Your task to perform on an android device: see tabs open on other devices in the chrome app Image 0: 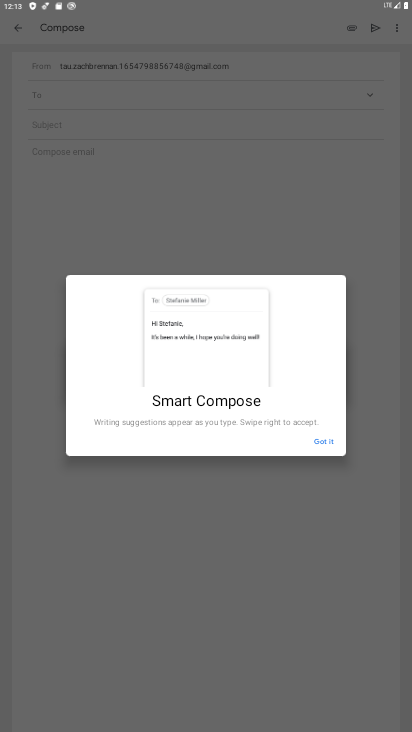
Step 0: press home button
Your task to perform on an android device: see tabs open on other devices in the chrome app Image 1: 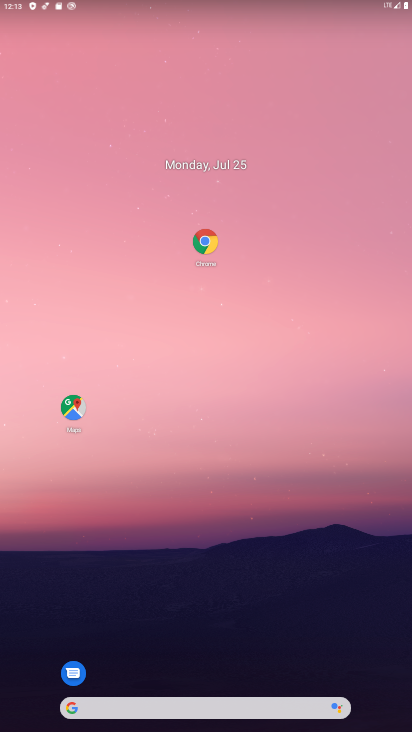
Step 1: drag from (291, 695) to (365, 95)
Your task to perform on an android device: see tabs open on other devices in the chrome app Image 2: 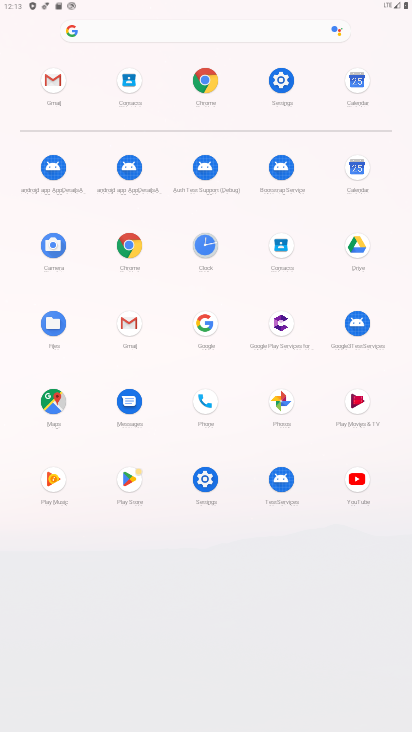
Step 2: click (130, 240)
Your task to perform on an android device: see tabs open on other devices in the chrome app Image 3: 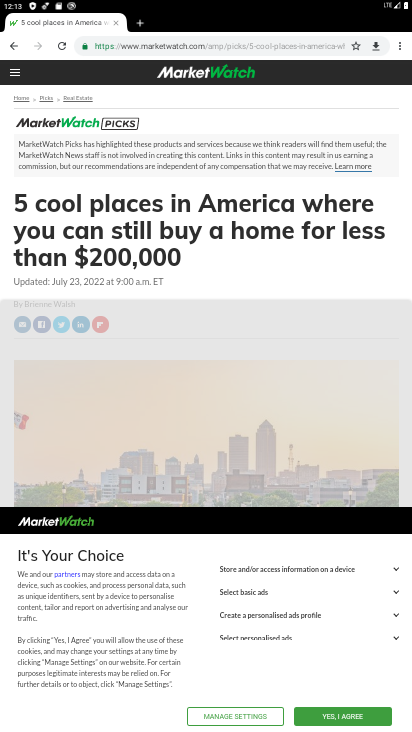
Step 3: task complete